Your task to perform on an android device: toggle sleep mode Image 0: 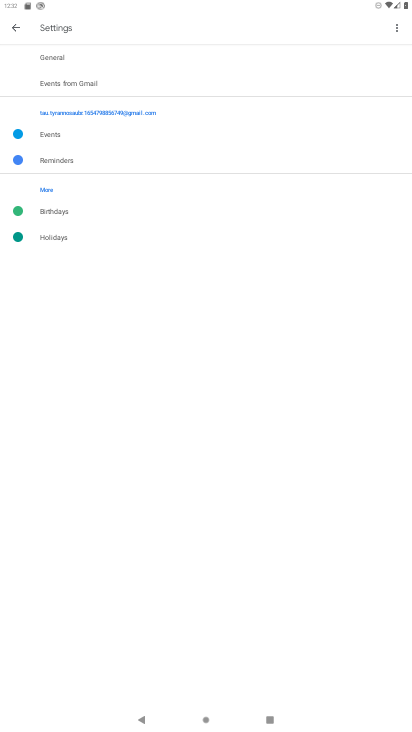
Step 0: task impossible